Your task to perform on an android device: Search for sushi restaurants on Maps Image 0: 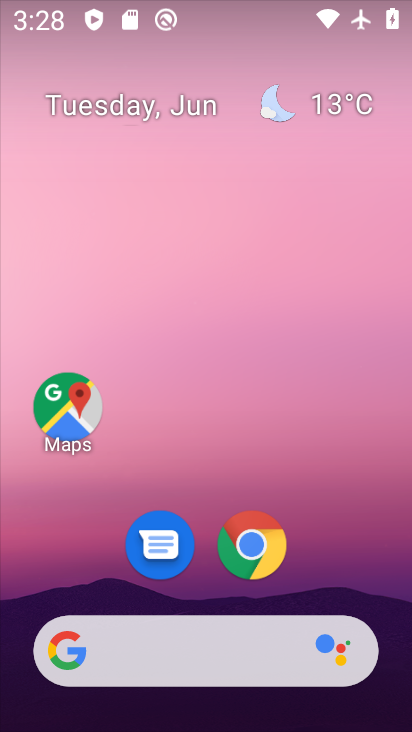
Step 0: click (297, 332)
Your task to perform on an android device: Search for sushi restaurants on Maps Image 1: 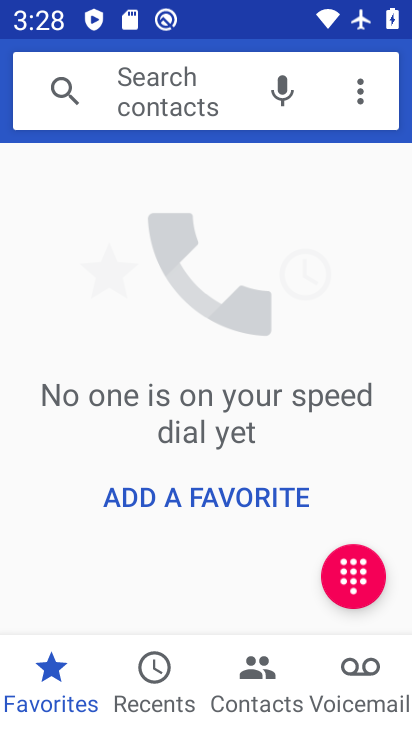
Step 1: press back button
Your task to perform on an android device: Search for sushi restaurants on Maps Image 2: 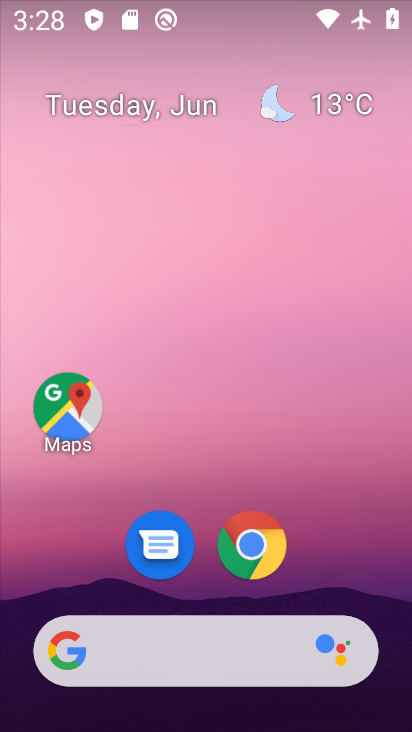
Step 2: drag from (231, 513) to (183, 177)
Your task to perform on an android device: Search for sushi restaurants on Maps Image 3: 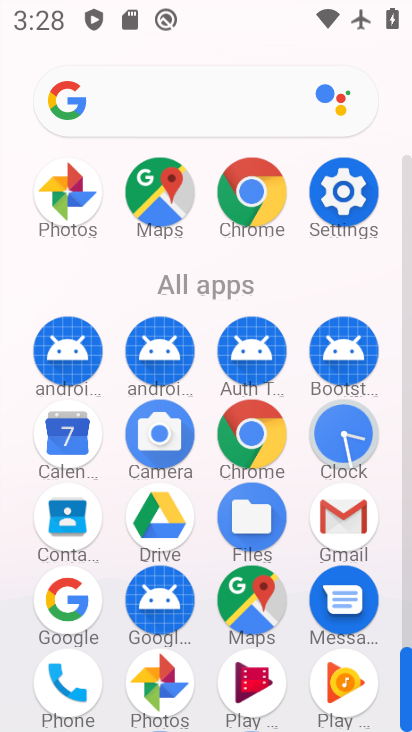
Step 3: click (237, 590)
Your task to perform on an android device: Search for sushi restaurants on Maps Image 4: 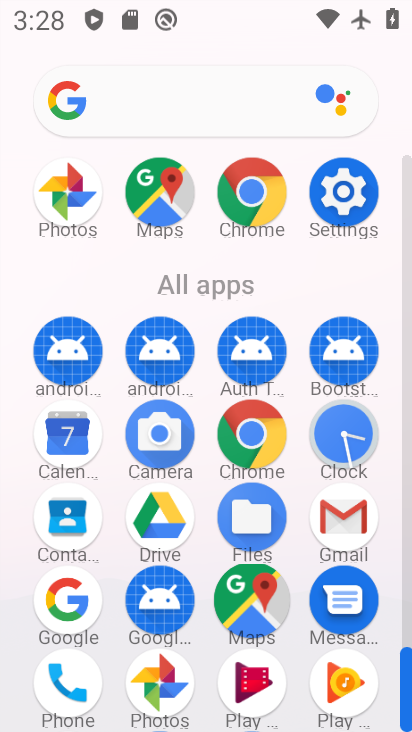
Step 4: click (227, 623)
Your task to perform on an android device: Search for sushi restaurants on Maps Image 5: 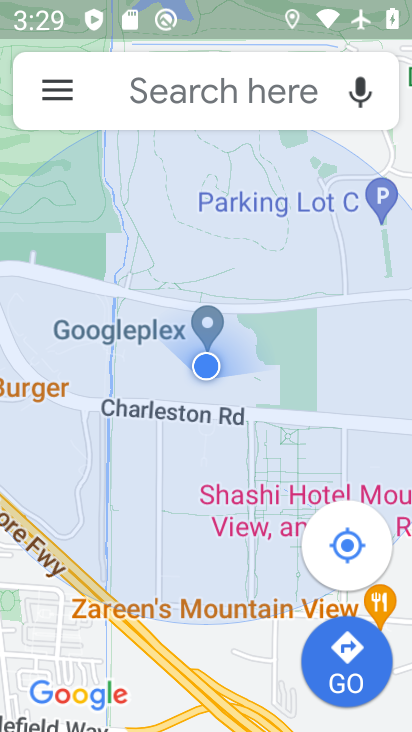
Step 5: type "sushi restaurants"
Your task to perform on an android device: Search for sushi restaurants on Maps Image 6: 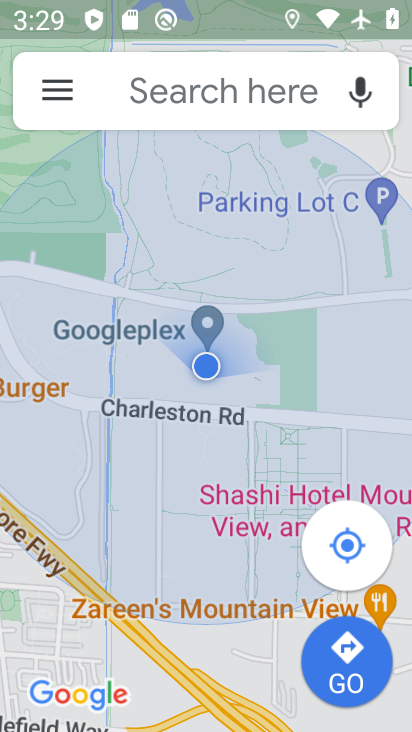
Step 6: click (133, 100)
Your task to perform on an android device: Search for sushi restaurants on Maps Image 7: 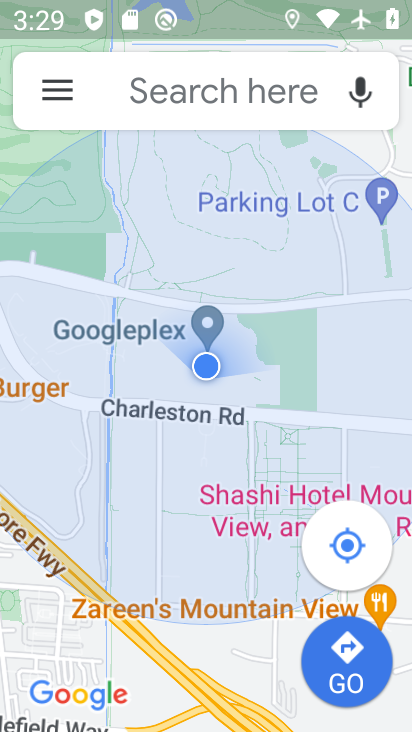
Step 7: click (132, 98)
Your task to perform on an android device: Search for sushi restaurants on Maps Image 8: 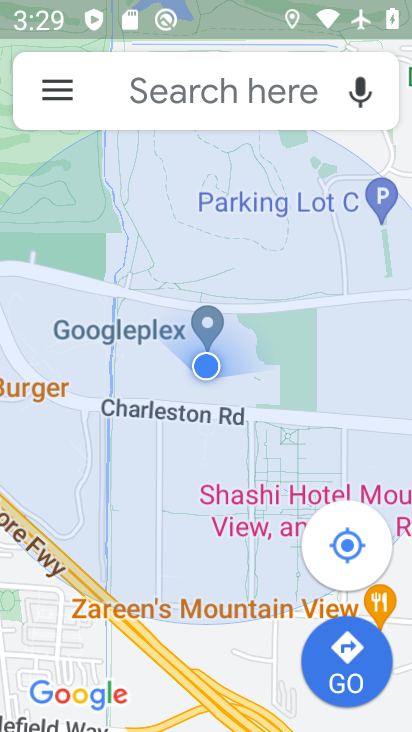
Step 8: click (133, 99)
Your task to perform on an android device: Search for sushi restaurants on Maps Image 9: 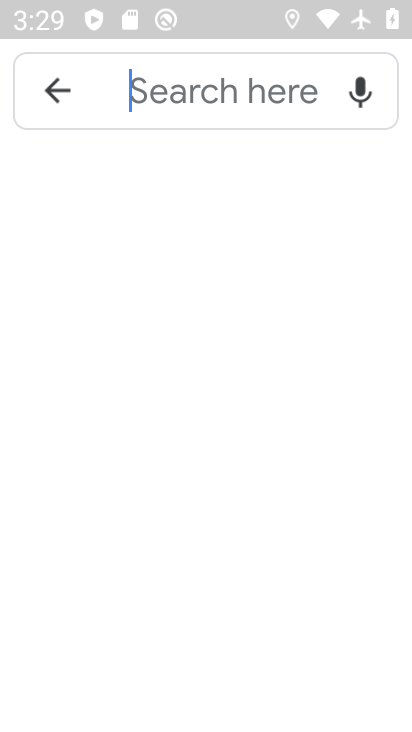
Step 9: click (134, 100)
Your task to perform on an android device: Search for sushi restaurants on Maps Image 10: 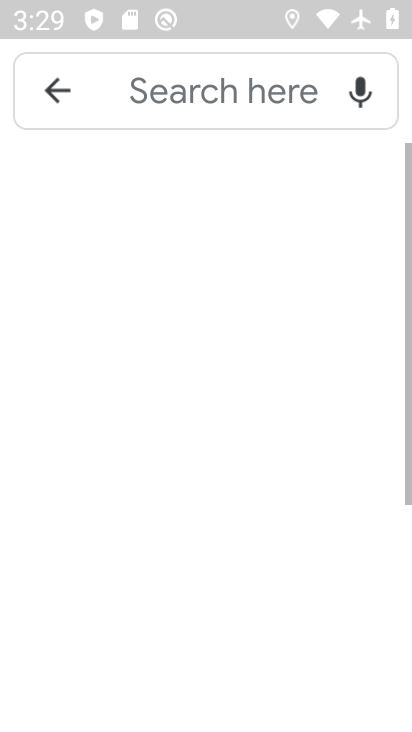
Step 10: click (115, 119)
Your task to perform on an android device: Search for sushi restaurants on Maps Image 11: 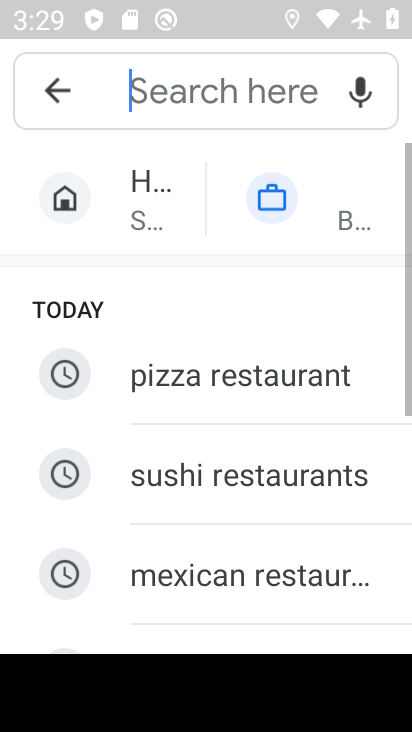
Step 11: click (219, 466)
Your task to perform on an android device: Search for sushi restaurants on Maps Image 12: 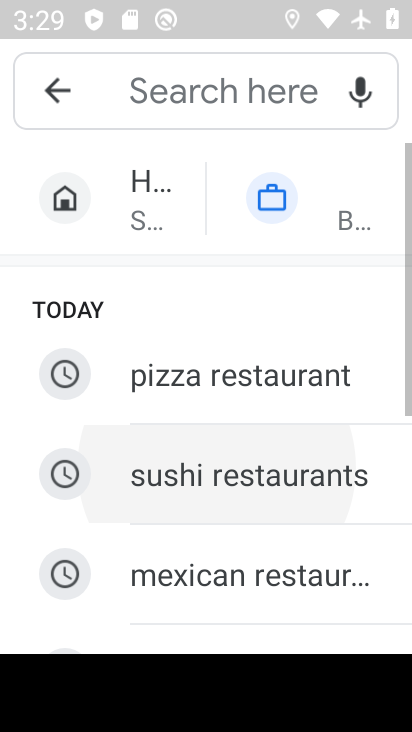
Step 12: click (225, 474)
Your task to perform on an android device: Search for sushi restaurants on Maps Image 13: 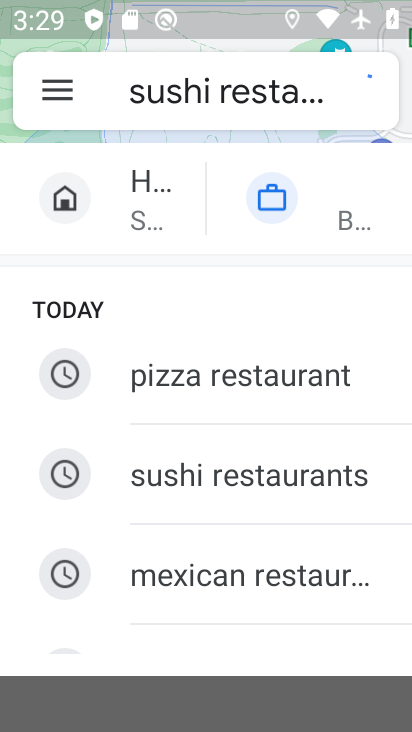
Step 13: click (220, 488)
Your task to perform on an android device: Search for sushi restaurants on Maps Image 14: 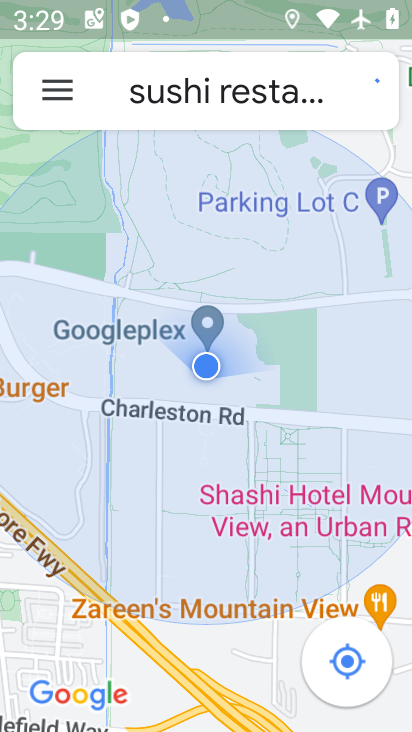
Step 14: task complete